Your task to perform on an android device: show emergency info Image 0: 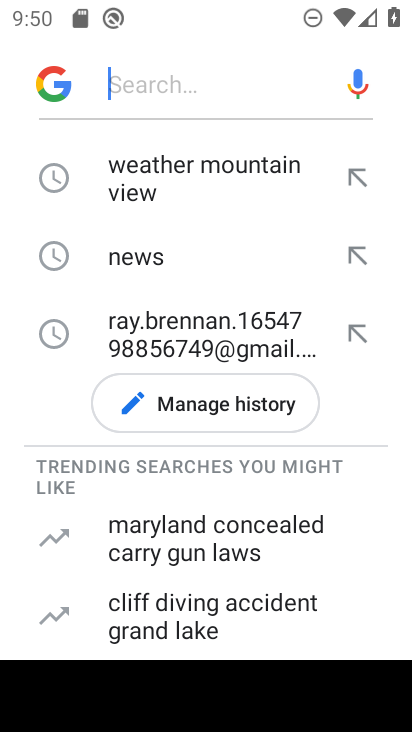
Step 0: press home button
Your task to perform on an android device: show emergency info Image 1: 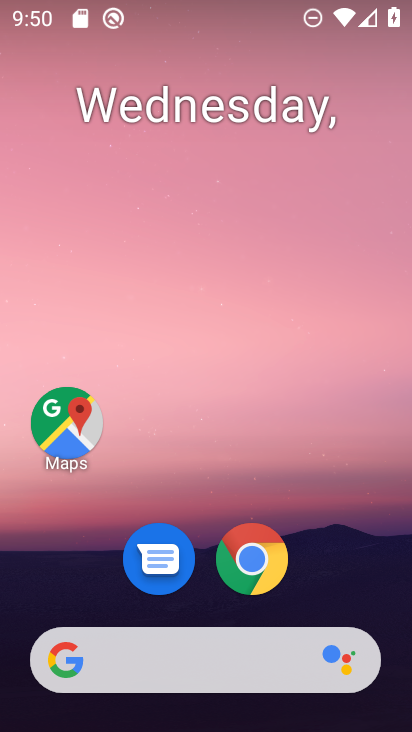
Step 1: drag from (374, 579) to (370, 217)
Your task to perform on an android device: show emergency info Image 2: 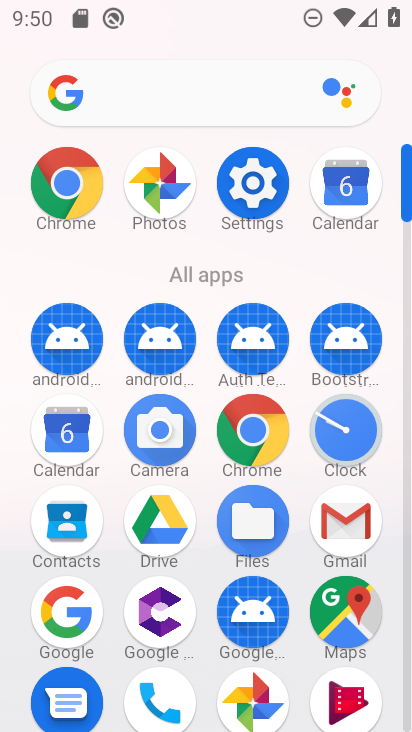
Step 2: click (263, 196)
Your task to perform on an android device: show emergency info Image 3: 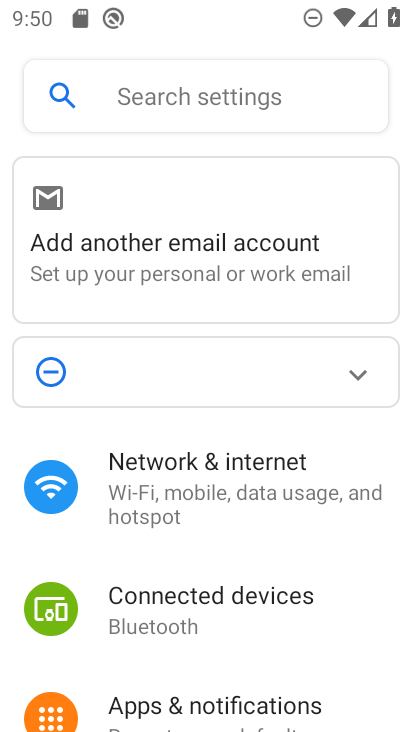
Step 3: drag from (357, 648) to (372, 558)
Your task to perform on an android device: show emergency info Image 4: 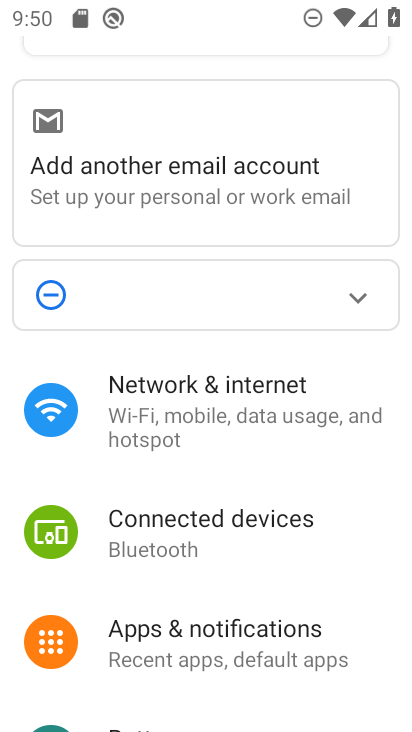
Step 4: drag from (379, 652) to (385, 535)
Your task to perform on an android device: show emergency info Image 5: 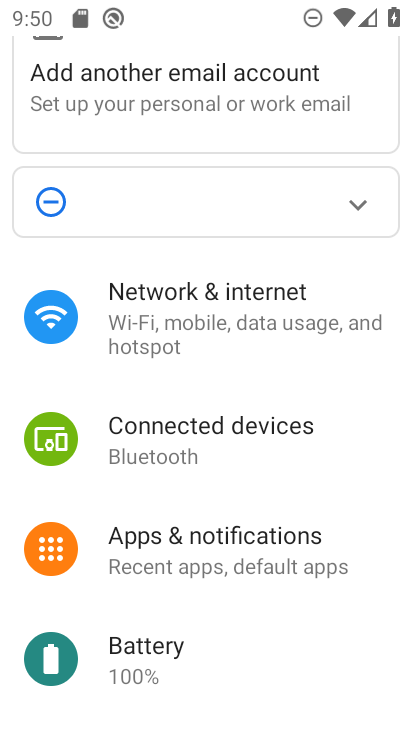
Step 5: drag from (363, 629) to (358, 508)
Your task to perform on an android device: show emergency info Image 6: 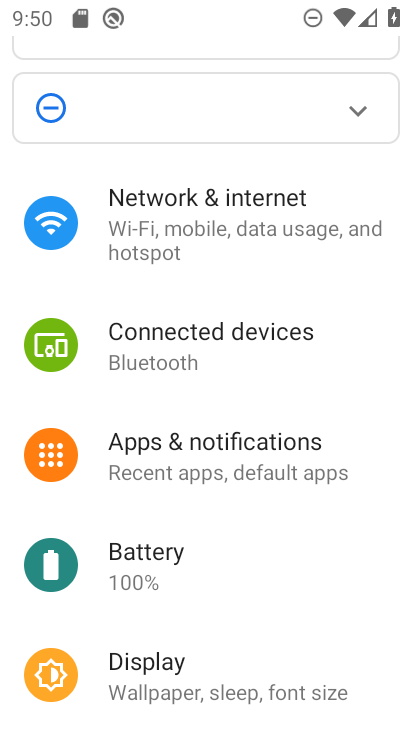
Step 6: drag from (355, 562) to (360, 422)
Your task to perform on an android device: show emergency info Image 7: 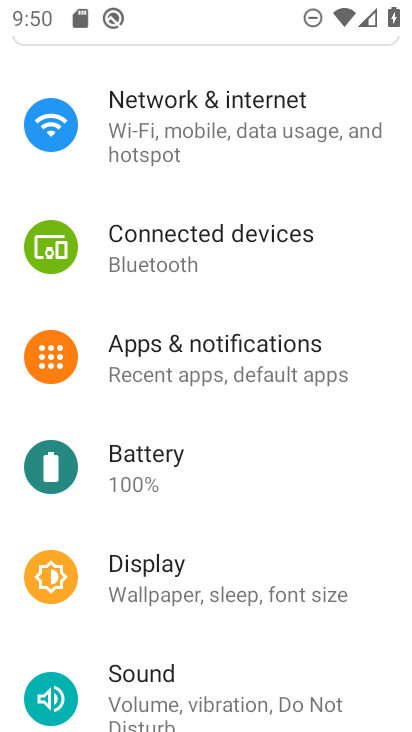
Step 7: drag from (371, 526) to (385, 383)
Your task to perform on an android device: show emergency info Image 8: 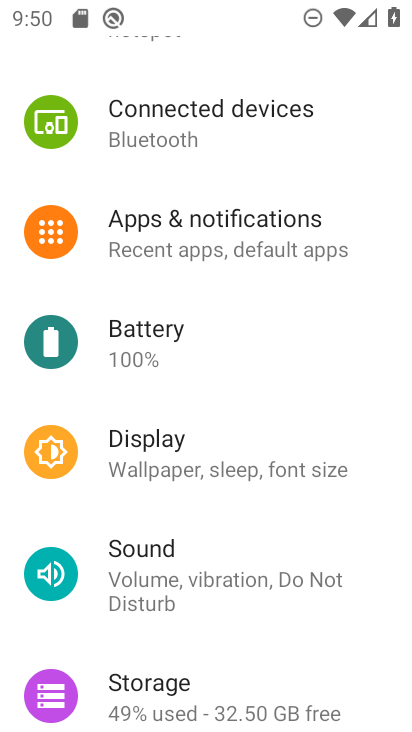
Step 8: drag from (374, 550) to (371, 440)
Your task to perform on an android device: show emergency info Image 9: 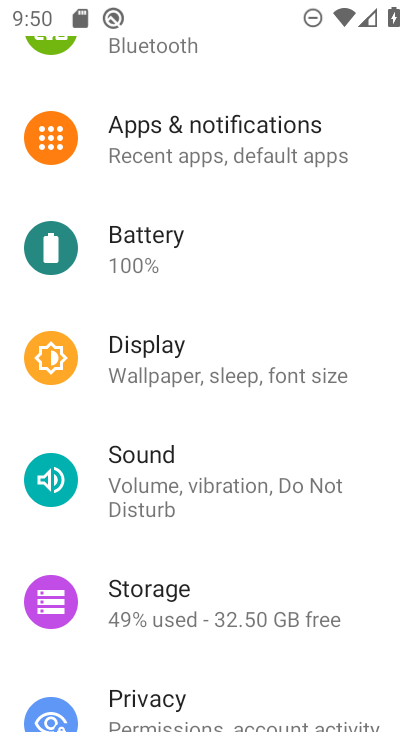
Step 9: drag from (372, 555) to (374, 420)
Your task to perform on an android device: show emergency info Image 10: 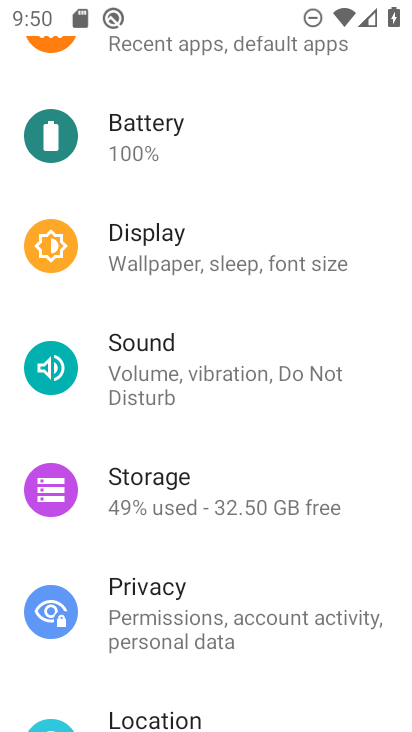
Step 10: drag from (367, 561) to (372, 450)
Your task to perform on an android device: show emergency info Image 11: 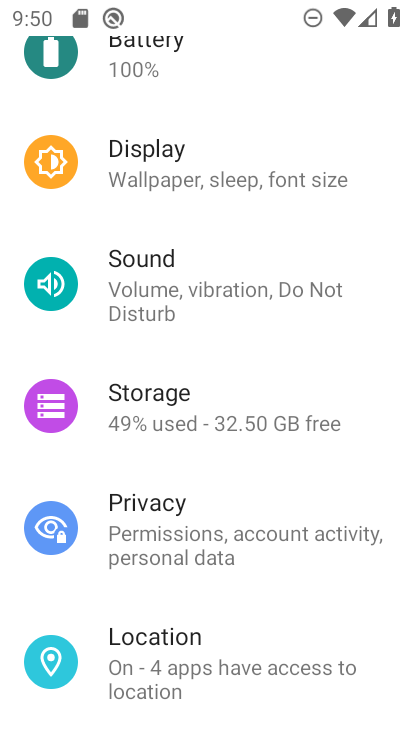
Step 11: drag from (349, 588) to (357, 474)
Your task to perform on an android device: show emergency info Image 12: 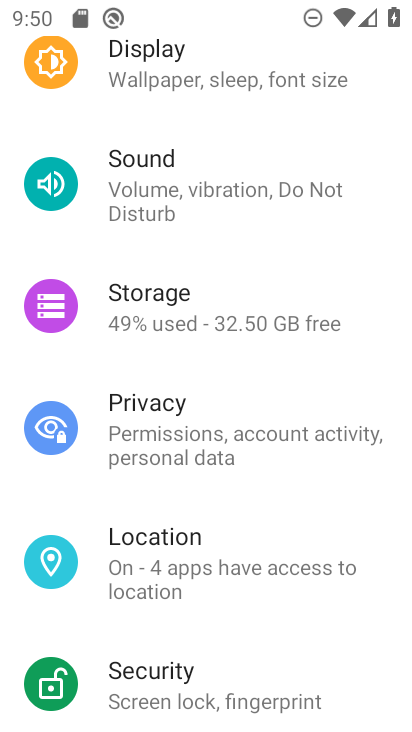
Step 12: drag from (365, 626) to (371, 530)
Your task to perform on an android device: show emergency info Image 13: 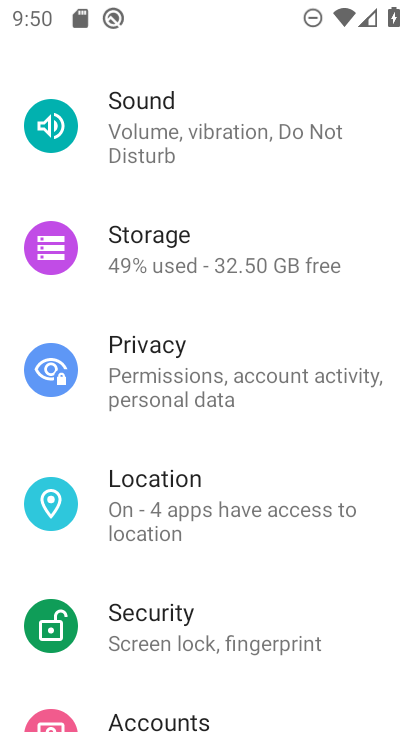
Step 13: drag from (365, 639) to (379, 523)
Your task to perform on an android device: show emergency info Image 14: 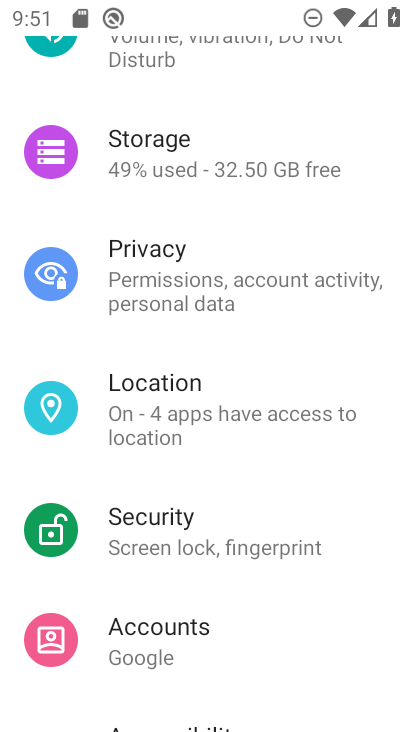
Step 14: drag from (333, 612) to (355, 479)
Your task to perform on an android device: show emergency info Image 15: 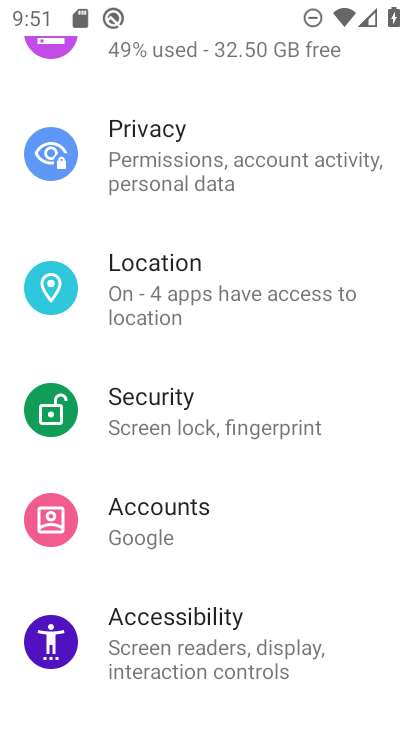
Step 15: drag from (361, 598) to (357, 483)
Your task to perform on an android device: show emergency info Image 16: 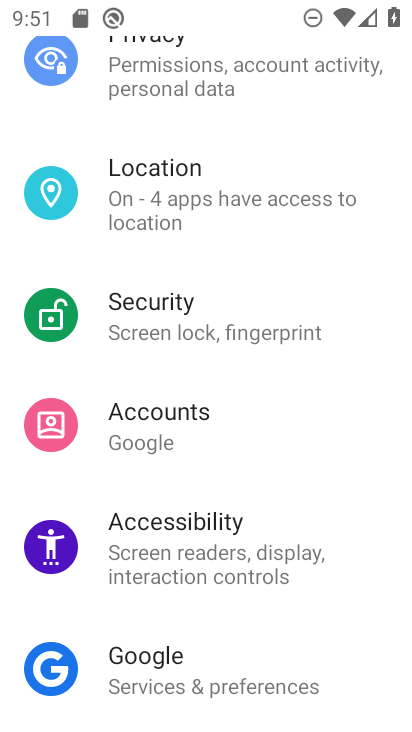
Step 16: drag from (358, 662) to (367, 510)
Your task to perform on an android device: show emergency info Image 17: 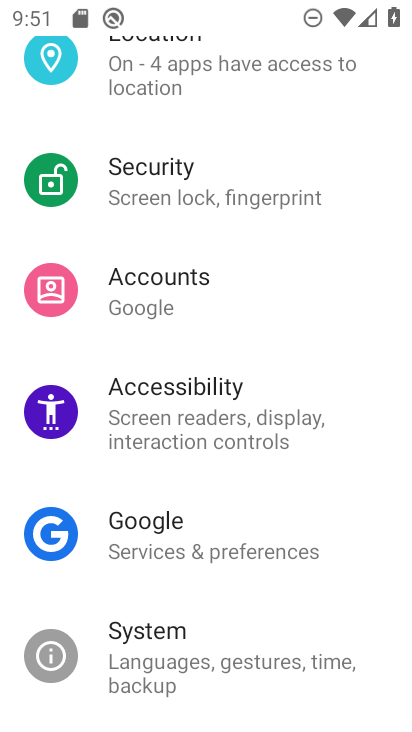
Step 17: drag from (382, 692) to (376, 489)
Your task to perform on an android device: show emergency info Image 18: 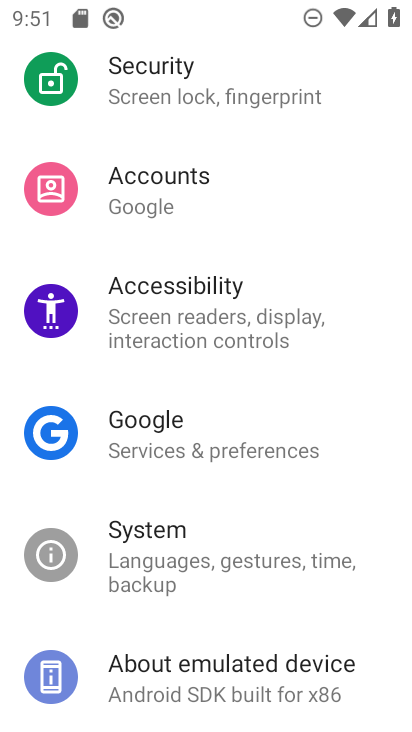
Step 18: click (339, 690)
Your task to perform on an android device: show emergency info Image 19: 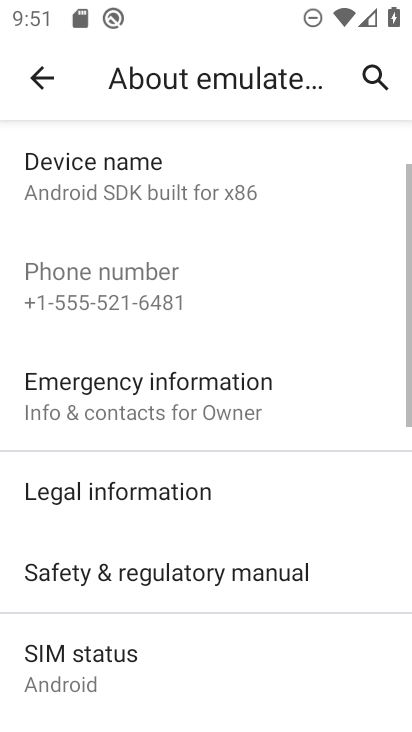
Step 19: click (289, 411)
Your task to perform on an android device: show emergency info Image 20: 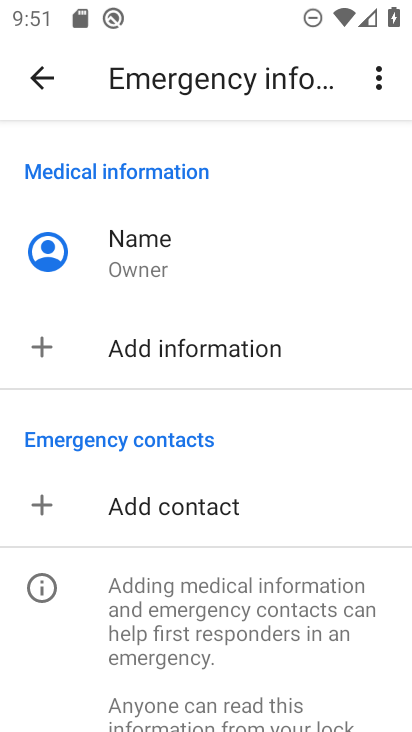
Step 20: task complete